Your task to perform on an android device: Go to settings Image 0: 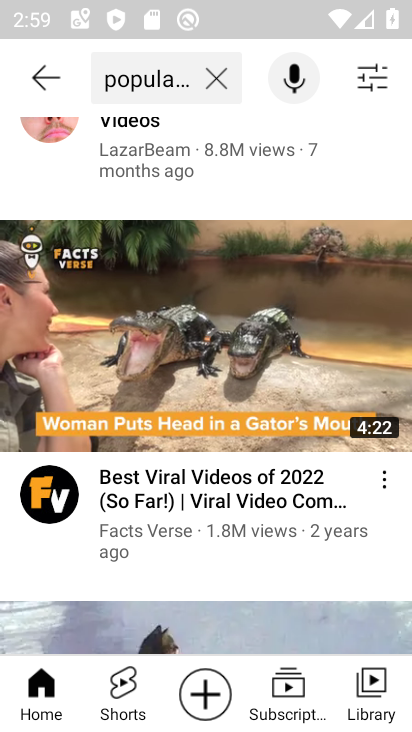
Step 0: press home button
Your task to perform on an android device: Go to settings Image 1: 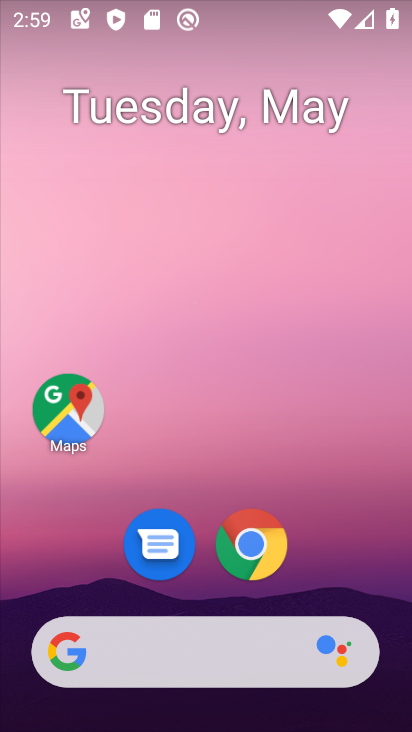
Step 1: drag from (326, 512) to (284, 27)
Your task to perform on an android device: Go to settings Image 2: 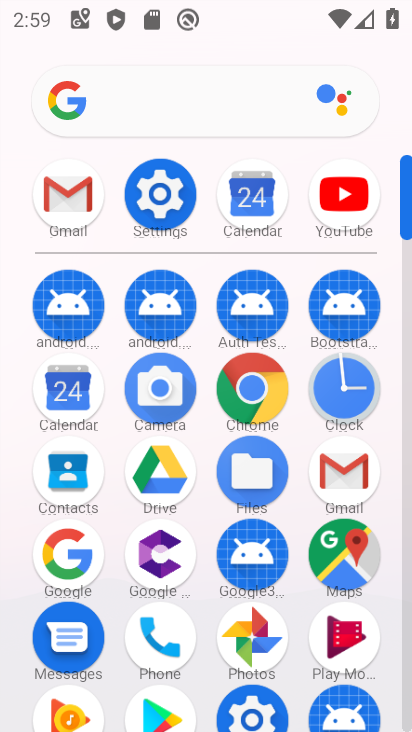
Step 2: click (161, 190)
Your task to perform on an android device: Go to settings Image 3: 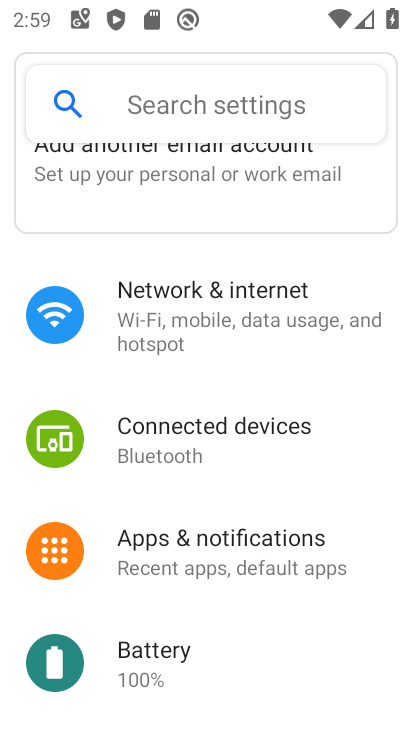
Step 3: task complete